Your task to perform on an android device: open wifi settings Image 0: 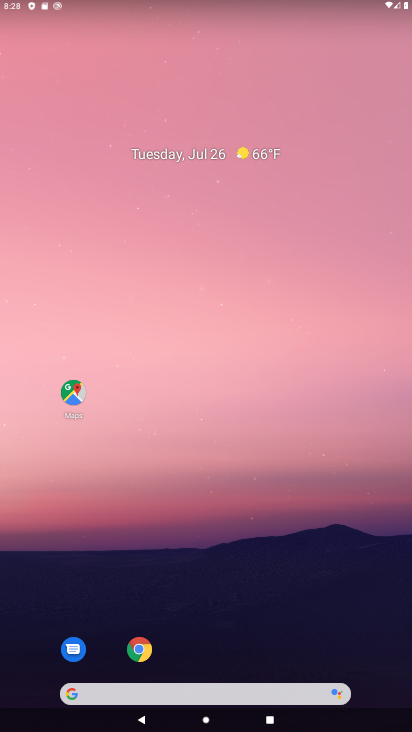
Step 0: drag from (240, 602) to (273, 27)
Your task to perform on an android device: open wifi settings Image 1: 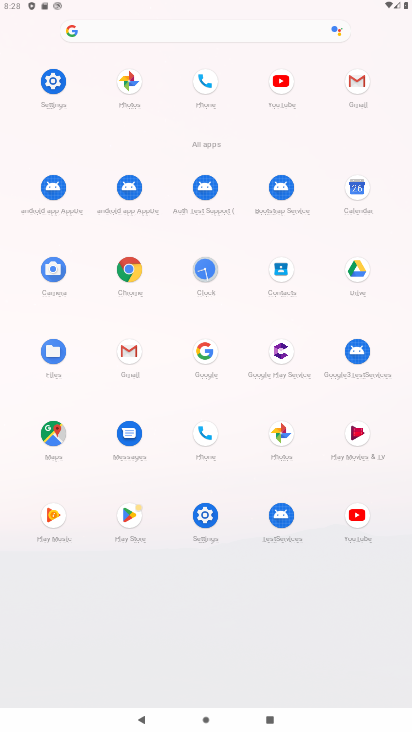
Step 1: click (57, 80)
Your task to perform on an android device: open wifi settings Image 2: 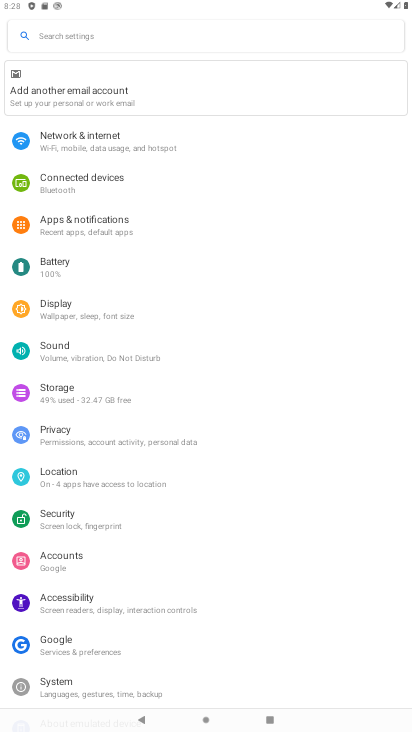
Step 2: click (146, 151)
Your task to perform on an android device: open wifi settings Image 3: 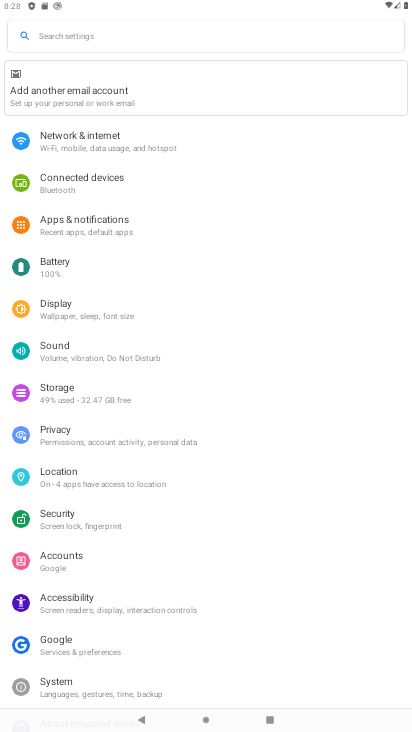
Step 3: click (146, 151)
Your task to perform on an android device: open wifi settings Image 4: 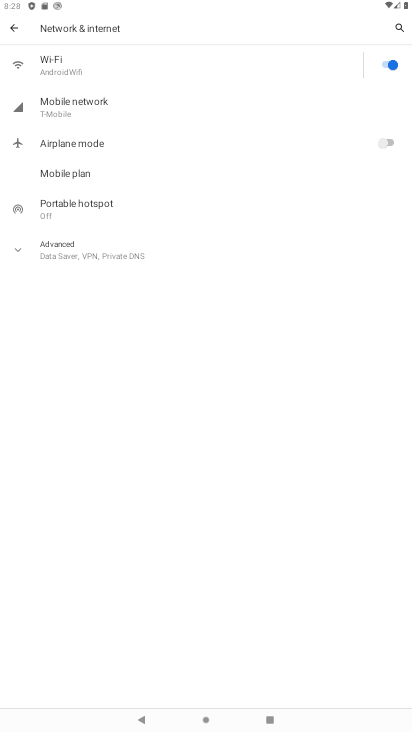
Step 4: click (150, 71)
Your task to perform on an android device: open wifi settings Image 5: 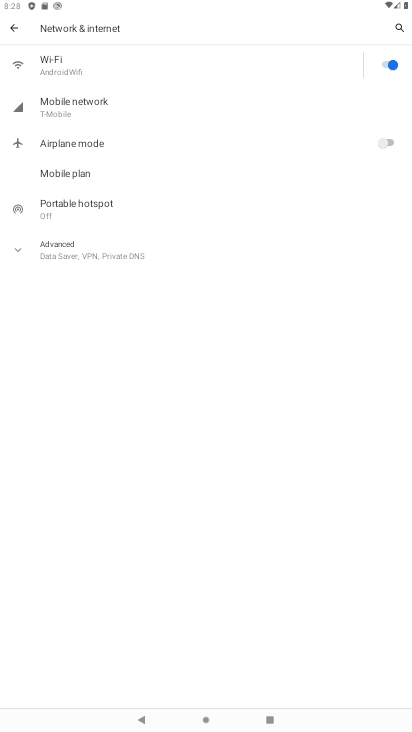
Step 5: click (150, 71)
Your task to perform on an android device: open wifi settings Image 6: 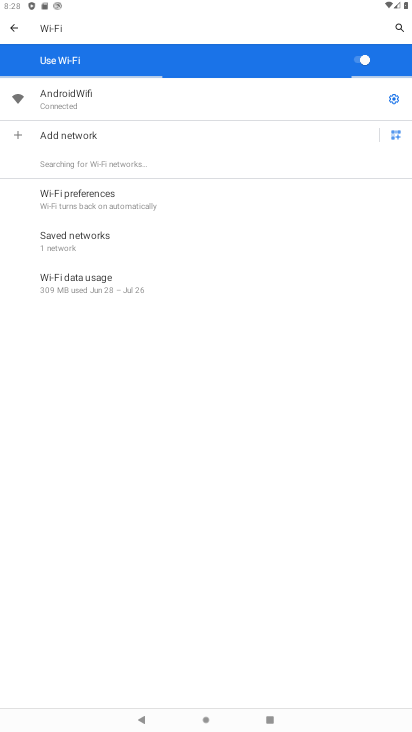
Step 6: click (393, 100)
Your task to perform on an android device: open wifi settings Image 7: 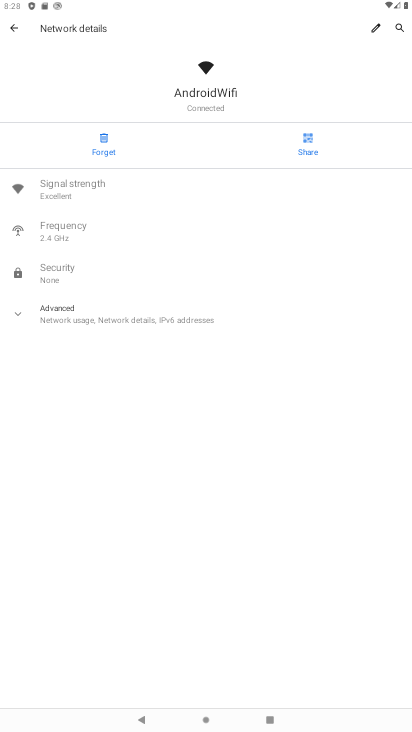
Step 7: task complete